Your task to perform on an android device: read, delete, or share a saved page in the chrome app Image 0: 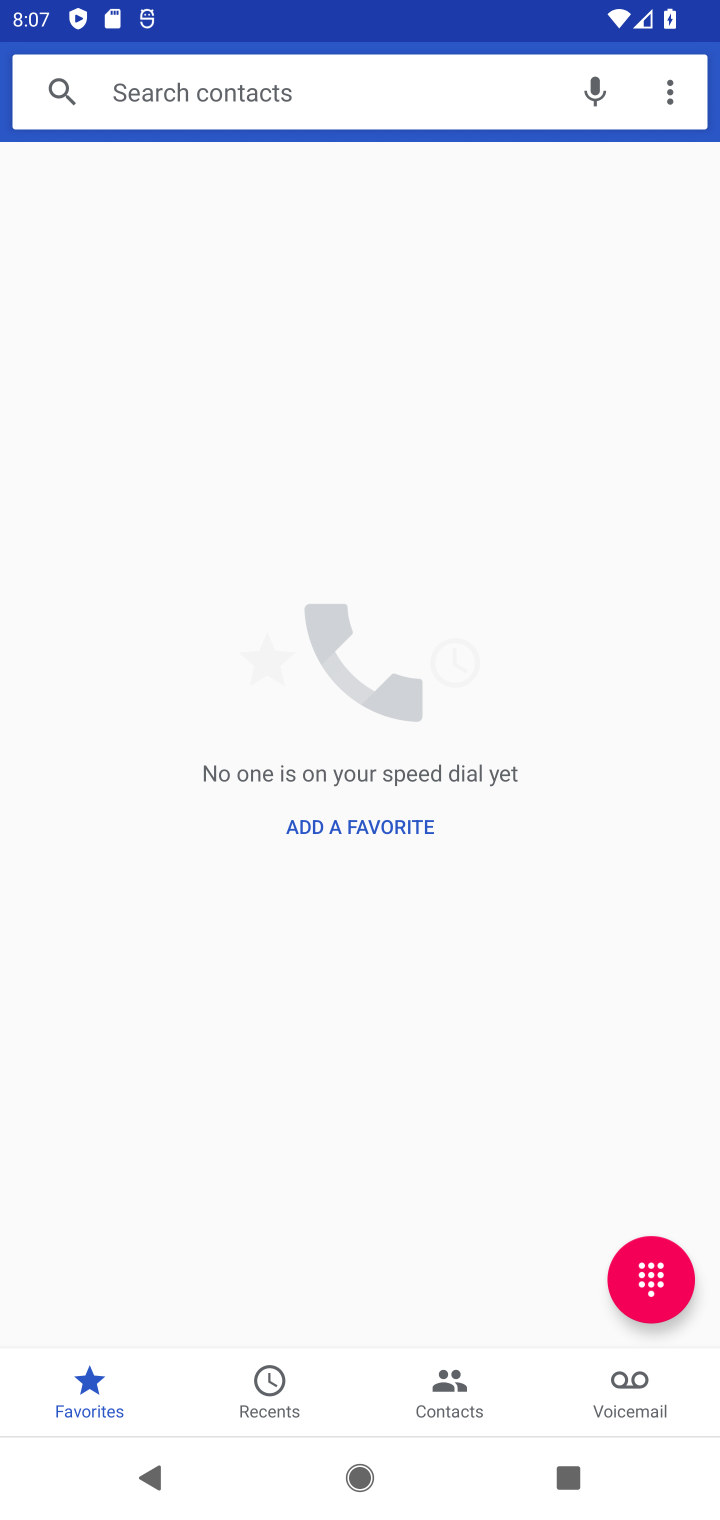
Step 0: press home button
Your task to perform on an android device: read, delete, or share a saved page in the chrome app Image 1: 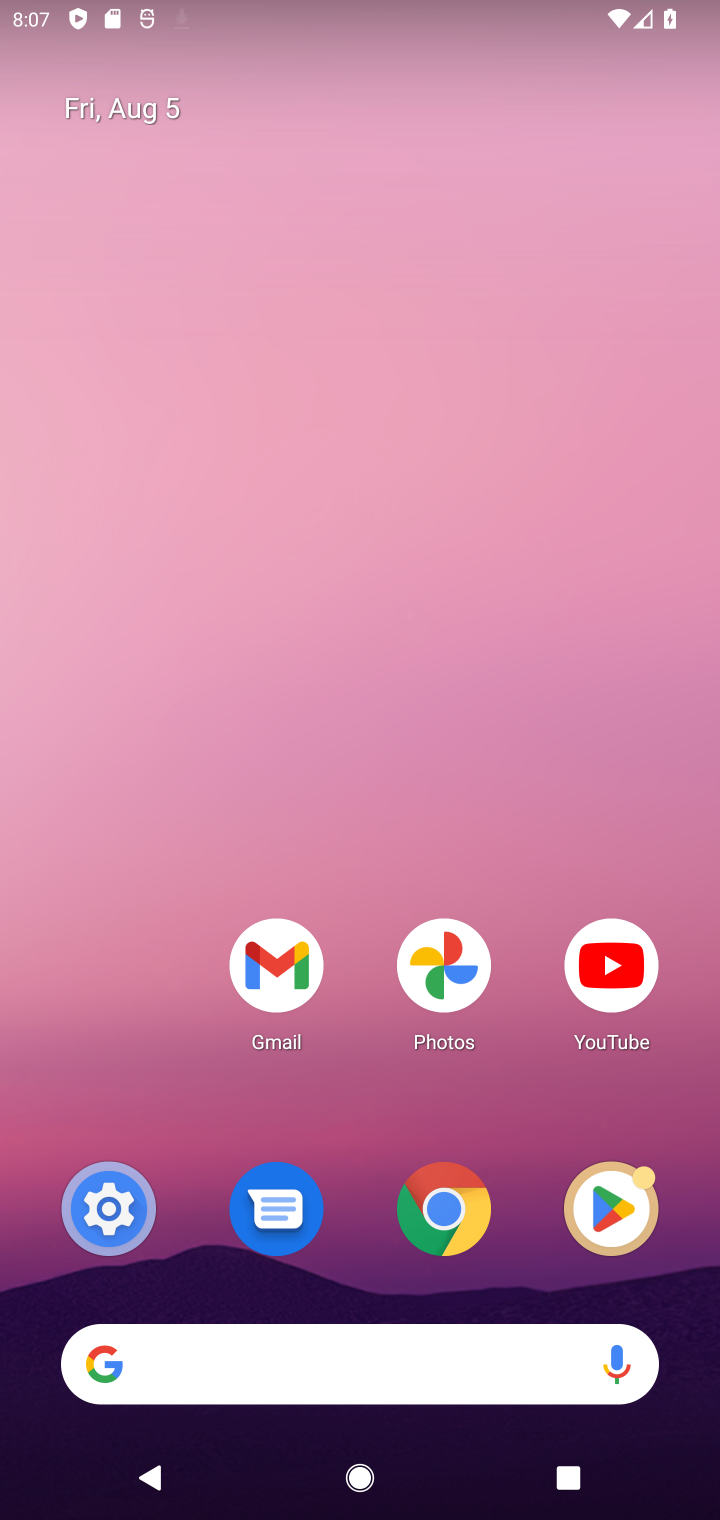
Step 1: click (432, 1225)
Your task to perform on an android device: read, delete, or share a saved page in the chrome app Image 2: 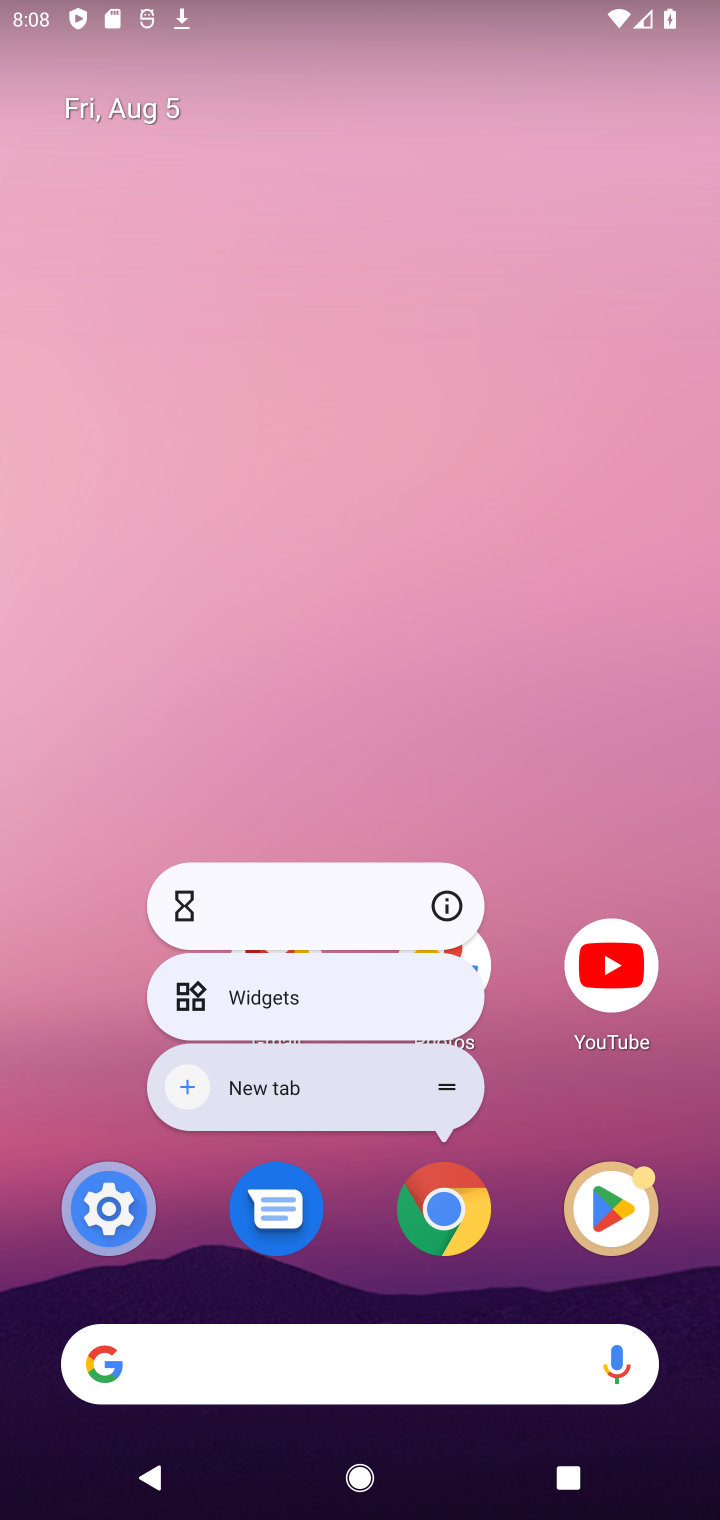
Step 2: click (439, 1217)
Your task to perform on an android device: read, delete, or share a saved page in the chrome app Image 3: 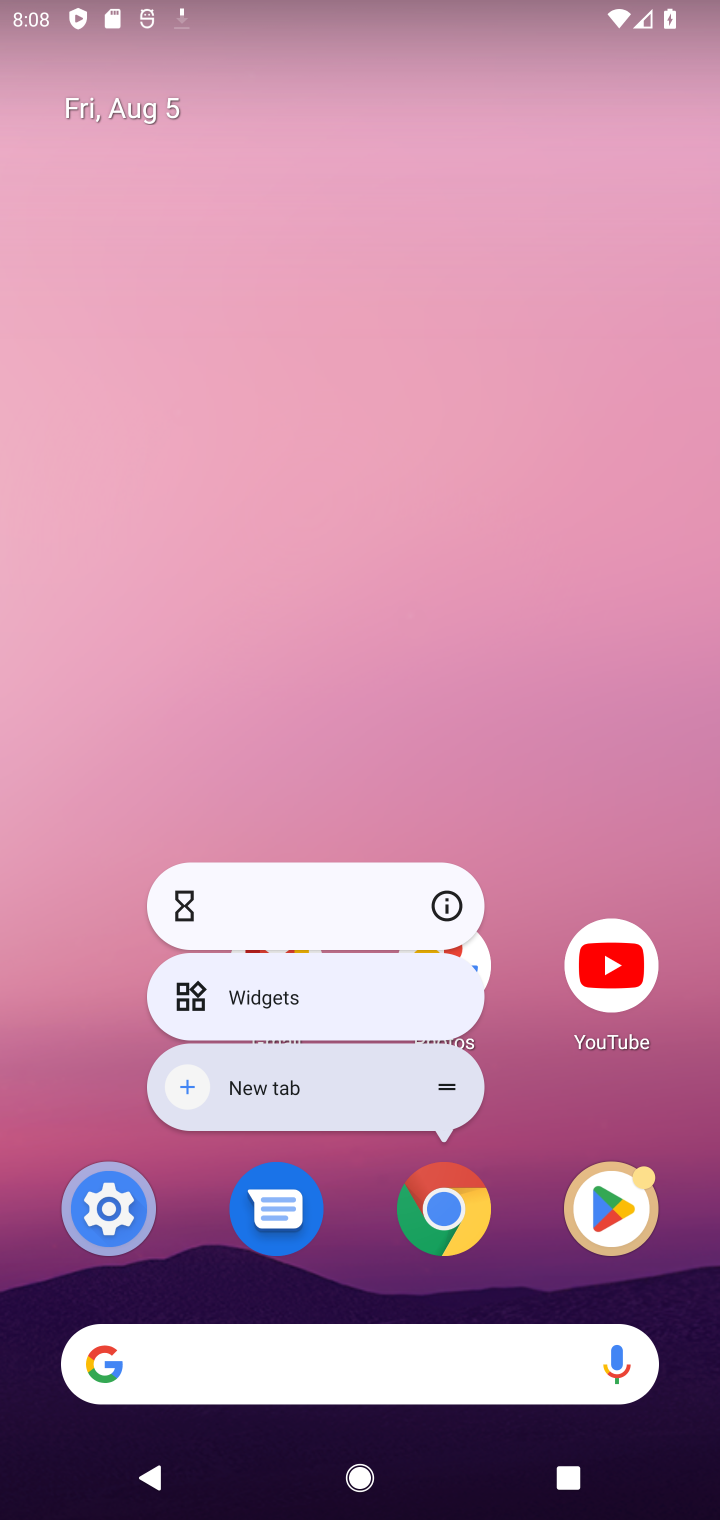
Step 3: click (439, 1217)
Your task to perform on an android device: read, delete, or share a saved page in the chrome app Image 4: 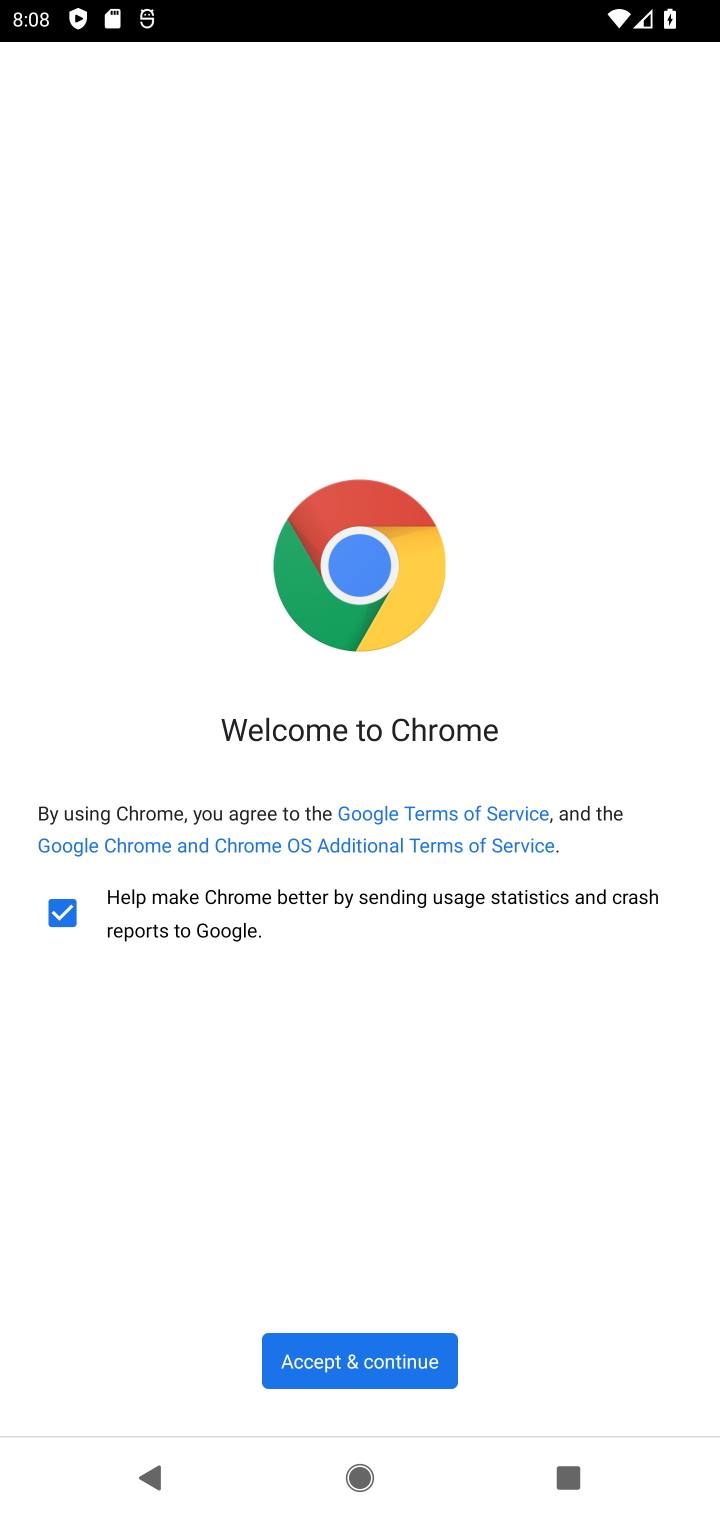
Step 4: click (382, 1362)
Your task to perform on an android device: read, delete, or share a saved page in the chrome app Image 5: 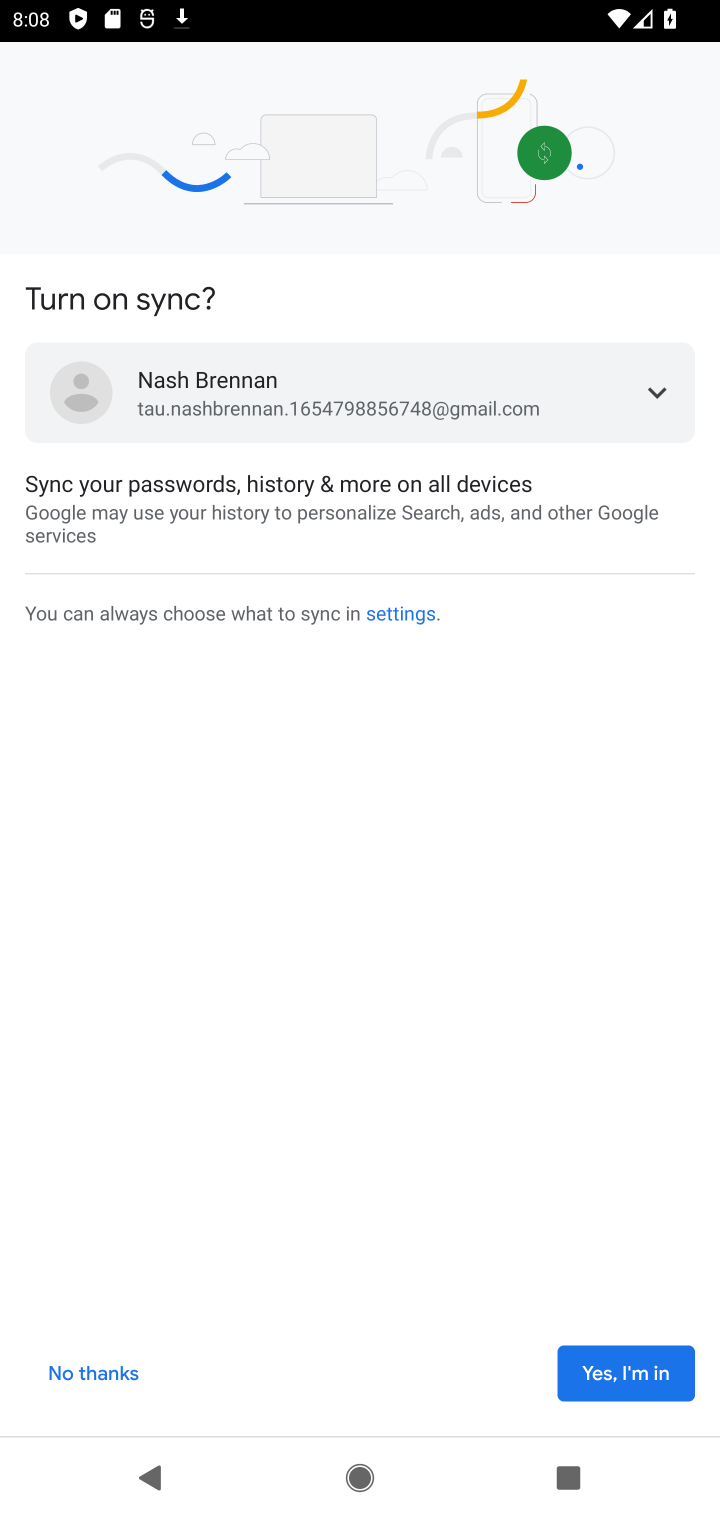
Step 5: click (594, 1373)
Your task to perform on an android device: read, delete, or share a saved page in the chrome app Image 6: 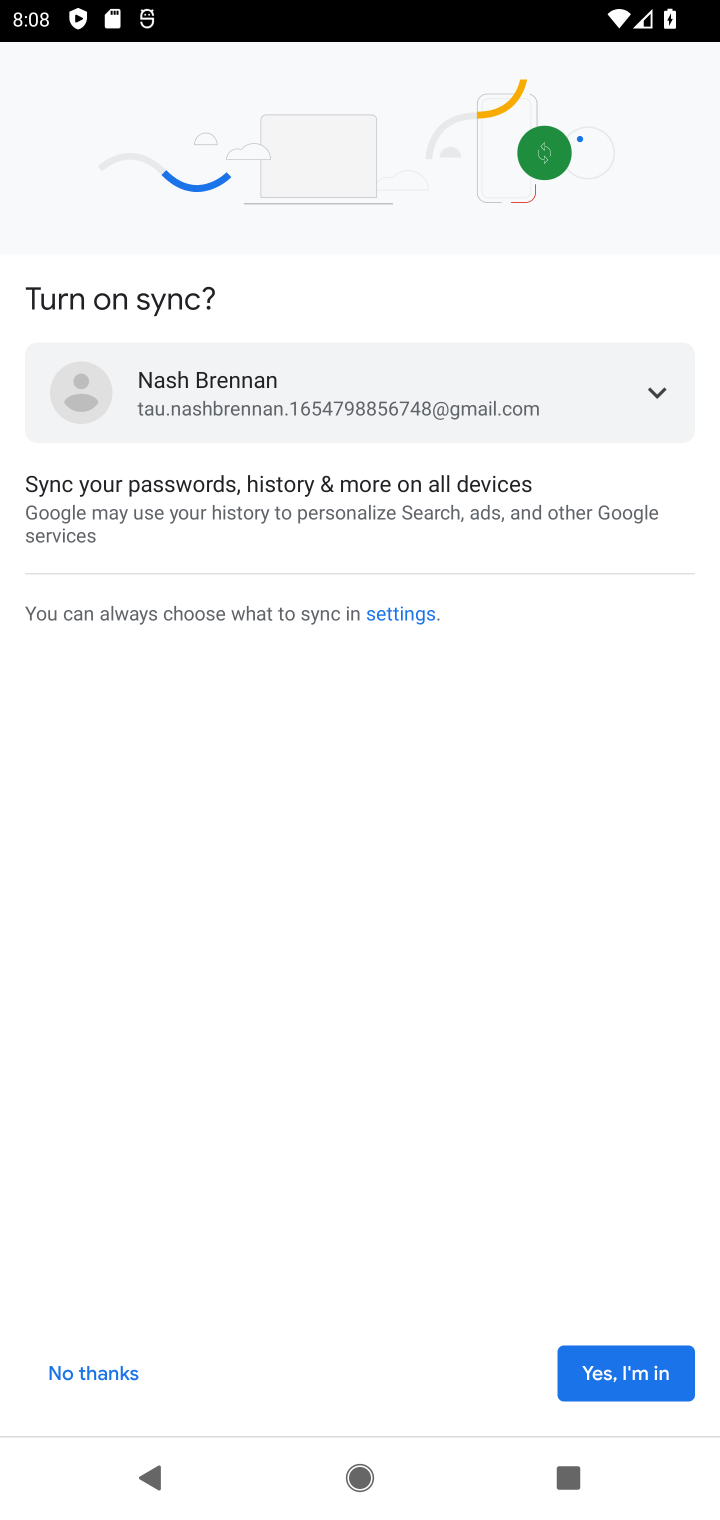
Step 6: click (630, 1372)
Your task to perform on an android device: read, delete, or share a saved page in the chrome app Image 7: 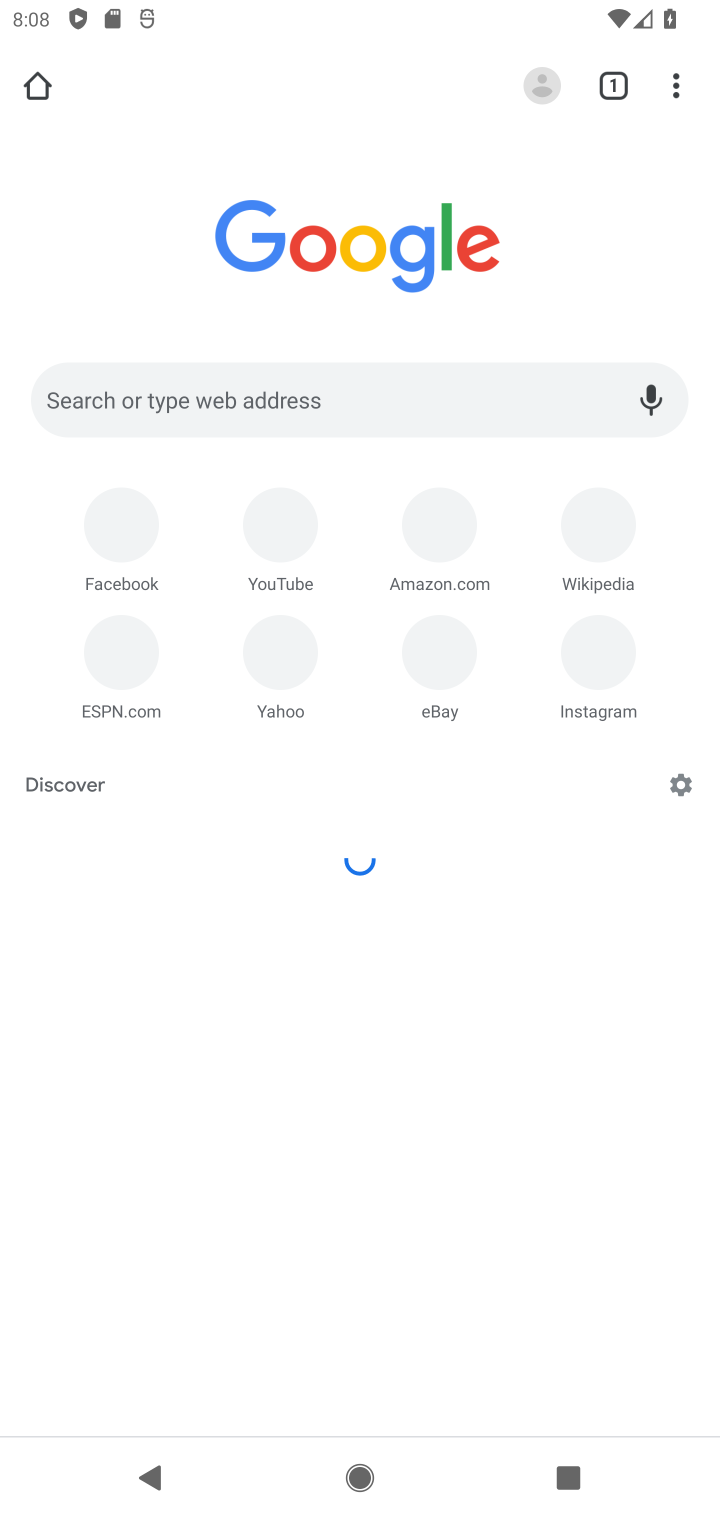
Step 7: task complete